Your task to perform on an android device: turn off priority inbox in the gmail app Image 0: 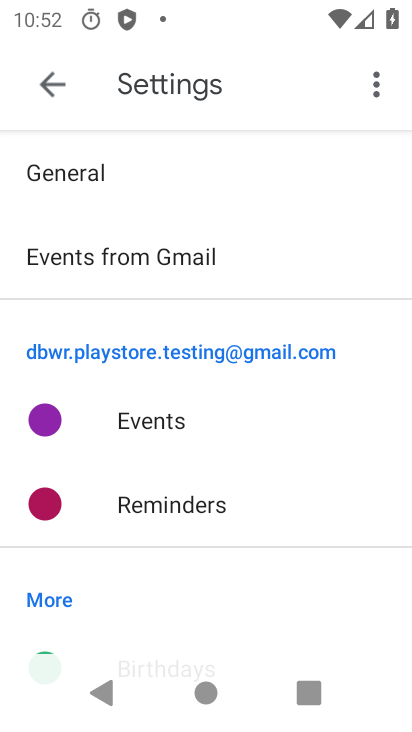
Step 0: press home button
Your task to perform on an android device: turn off priority inbox in the gmail app Image 1: 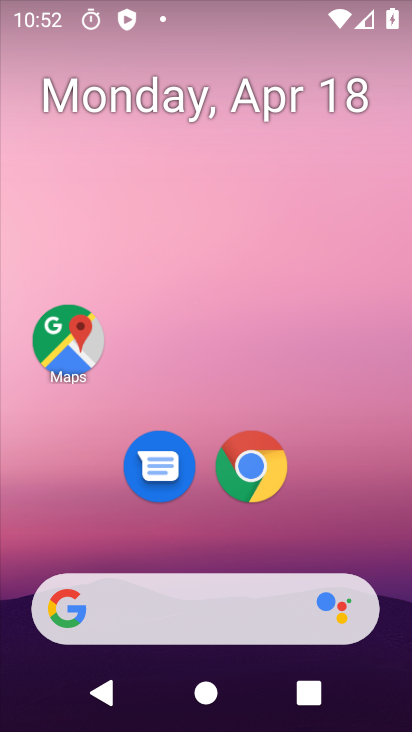
Step 1: drag from (223, 603) to (236, 317)
Your task to perform on an android device: turn off priority inbox in the gmail app Image 2: 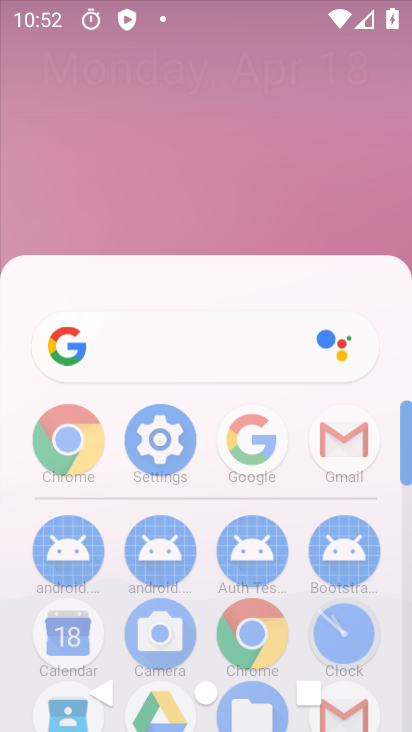
Step 2: click (236, 317)
Your task to perform on an android device: turn off priority inbox in the gmail app Image 3: 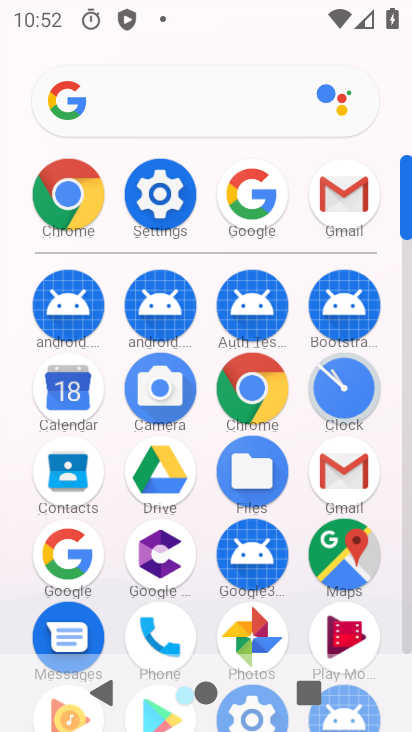
Step 3: click (404, 469)
Your task to perform on an android device: turn off priority inbox in the gmail app Image 4: 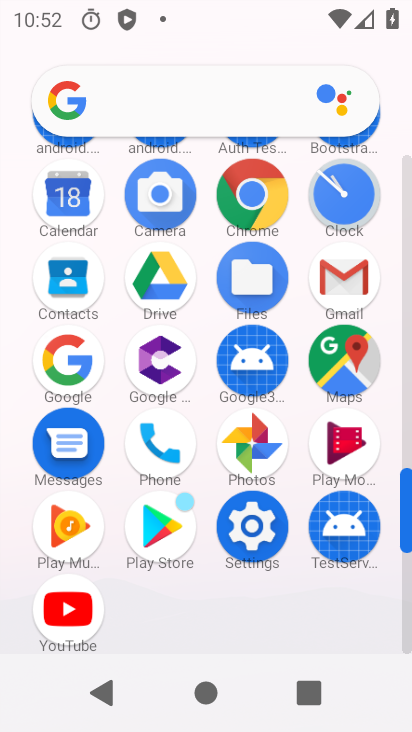
Step 4: click (342, 299)
Your task to perform on an android device: turn off priority inbox in the gmail app Image 5: 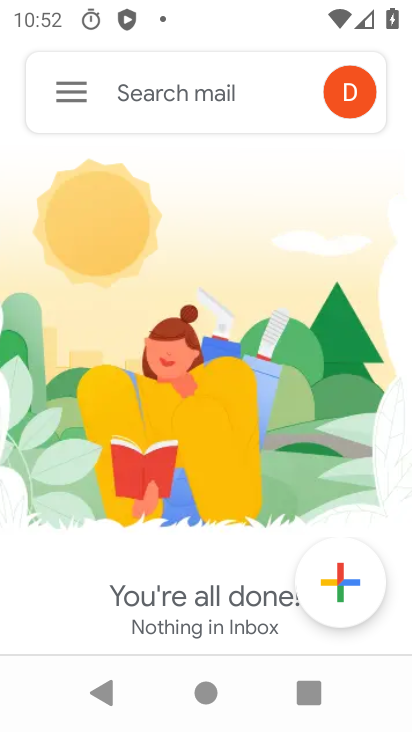
Step 5: click (80, 90)
Your task to perform on an android device: turn off priority inbox in the gmail app Image 6: 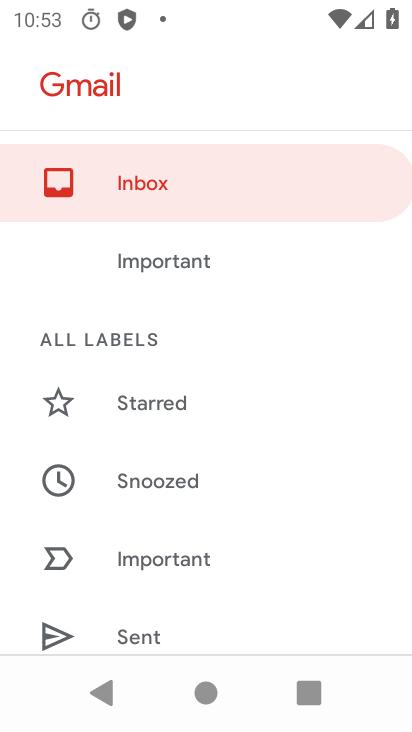
Step 6: drag from (245, 579) to (247, 265)
Your task to perform on an android device: turn off priority inbox in the gmail app Image 7: 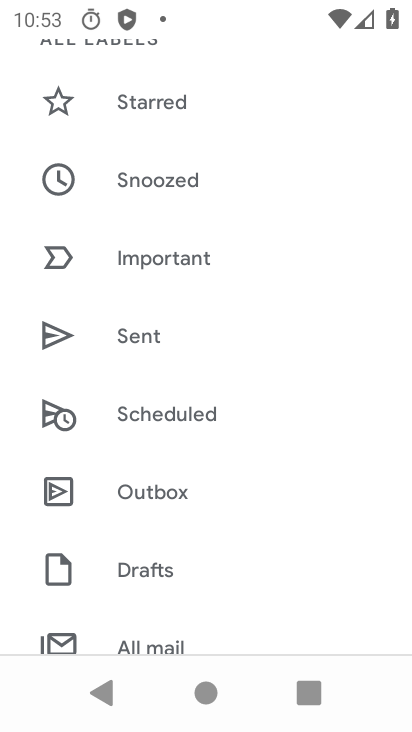
Step 7: drag from (183, 621) to (202, 316)
Your task to perform on an android device: turn off priority inbox in the gmail app Image 8: 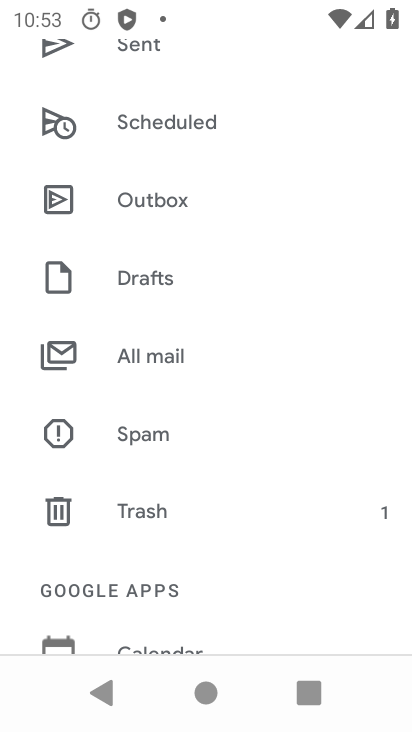
Step 8: drag from (165, 636) to (180, 288)
Your task to perform on an android device: turn off priority inbox in the gmail app Image 9: 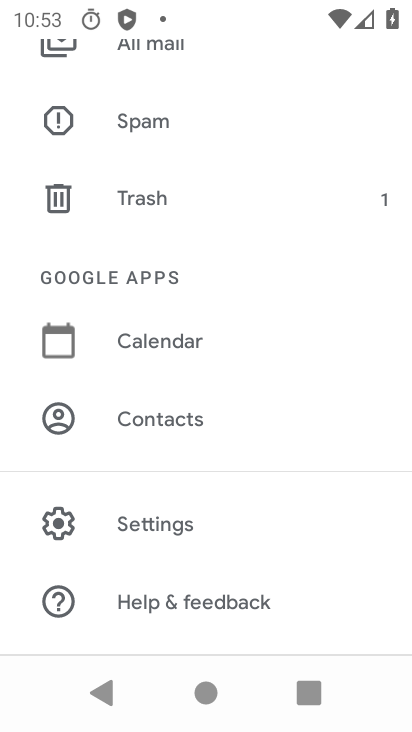
Step 9: click (173, 514)
Your task to perform on an android device: turn off priority inbox in the gmail app Image 10: 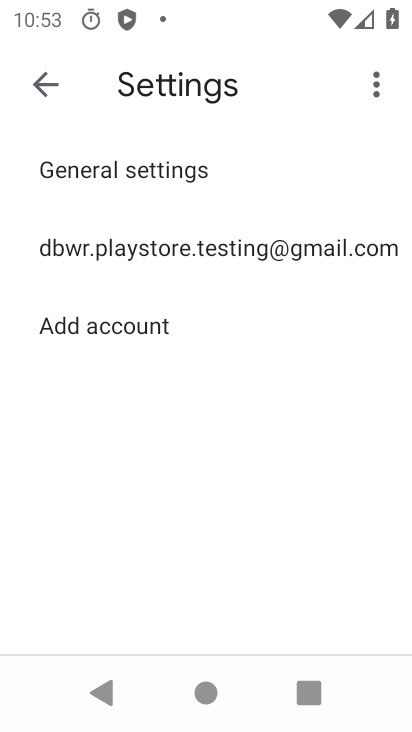
Step 10: click (166, 257)
Your task to perform on an android device: turn off priority inbox in the gmail app Image 11: 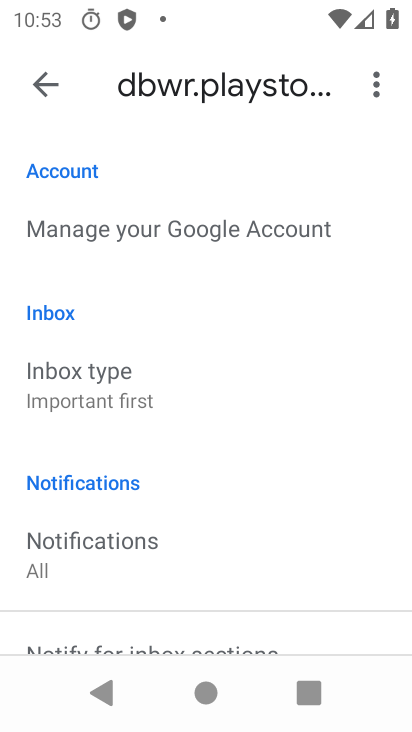
Step 11: drag from (272, 496) to (318, 300)
Your task to perform on an android device: turn off priority inbox in the gmail app Image 12: 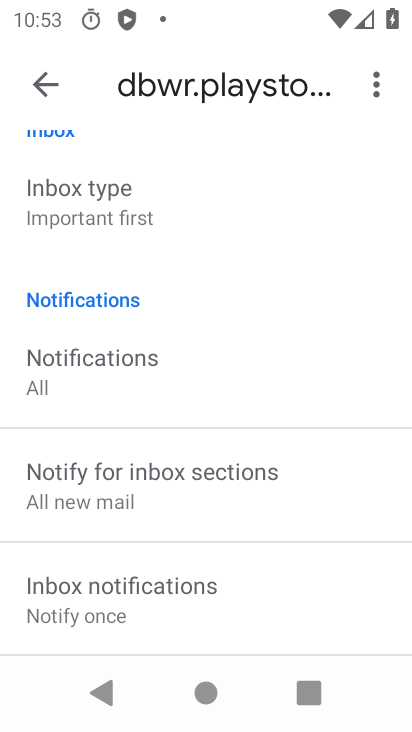
Step 12: drag from (212, 300) to (245, 597)
Your task to perform on an android device: turn off priority inbox in the gmail app Image 13: 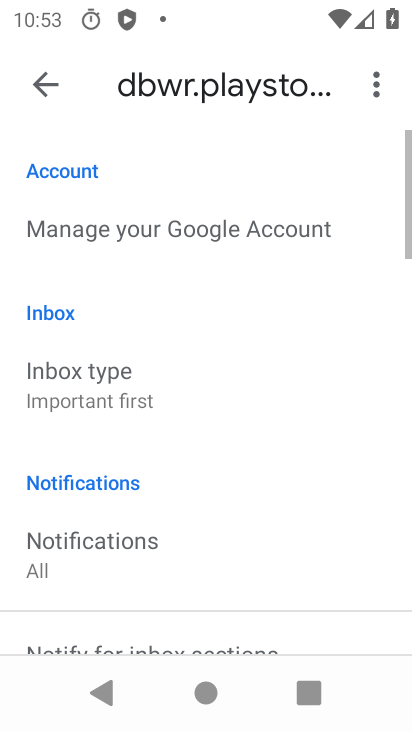
Step 13: click (122, 384)
Your task to perform on an android device: turn off priority inbox in the gmail app Image 14: 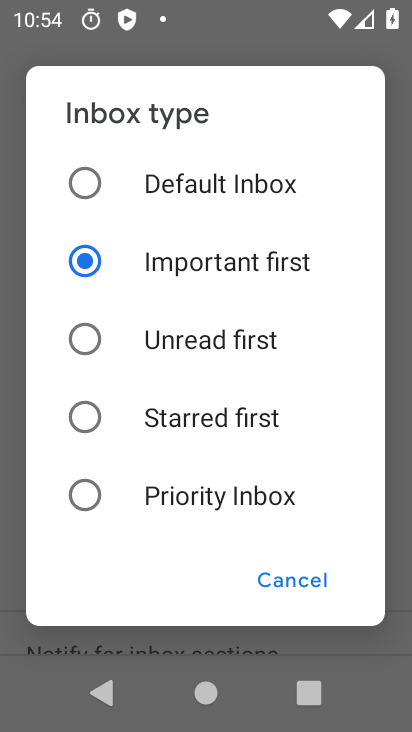
Step 14: task complete